Your task to perform on an android device: Open Google Maps Image 0: 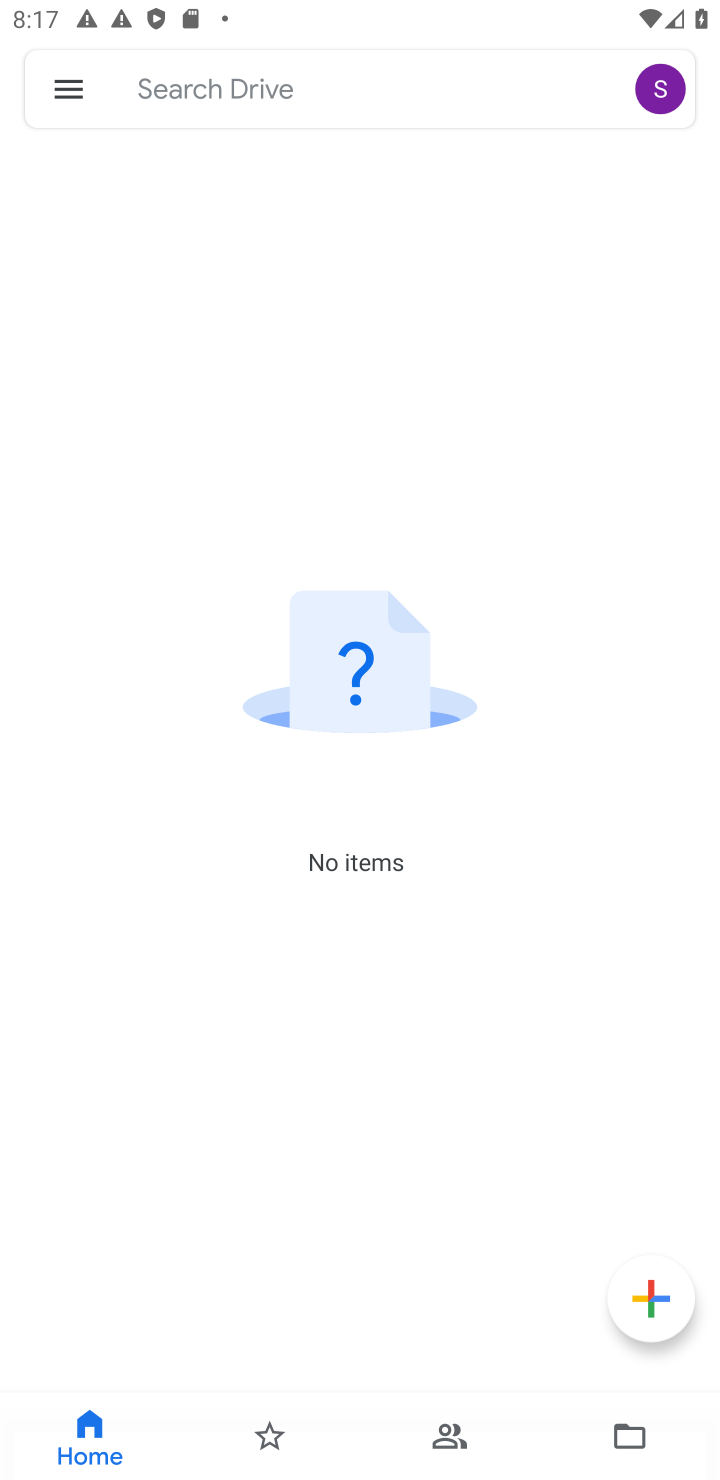
Step 0: press home button
Your task to perform on an android device: Open Google Maps Image 1: 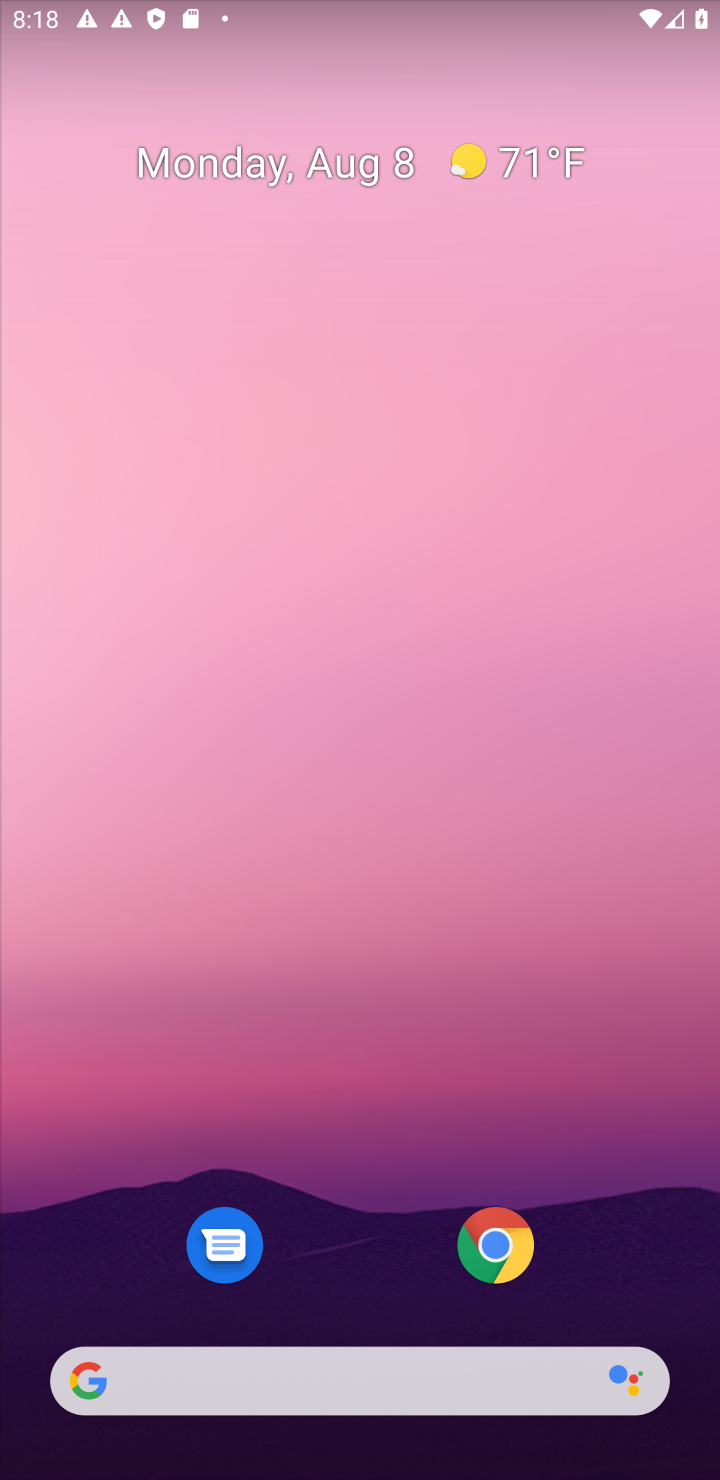
Step 1: drag from (339, 1259) to (335, 17)
Your task to perform on an android device: Open Google Maps Image 2: 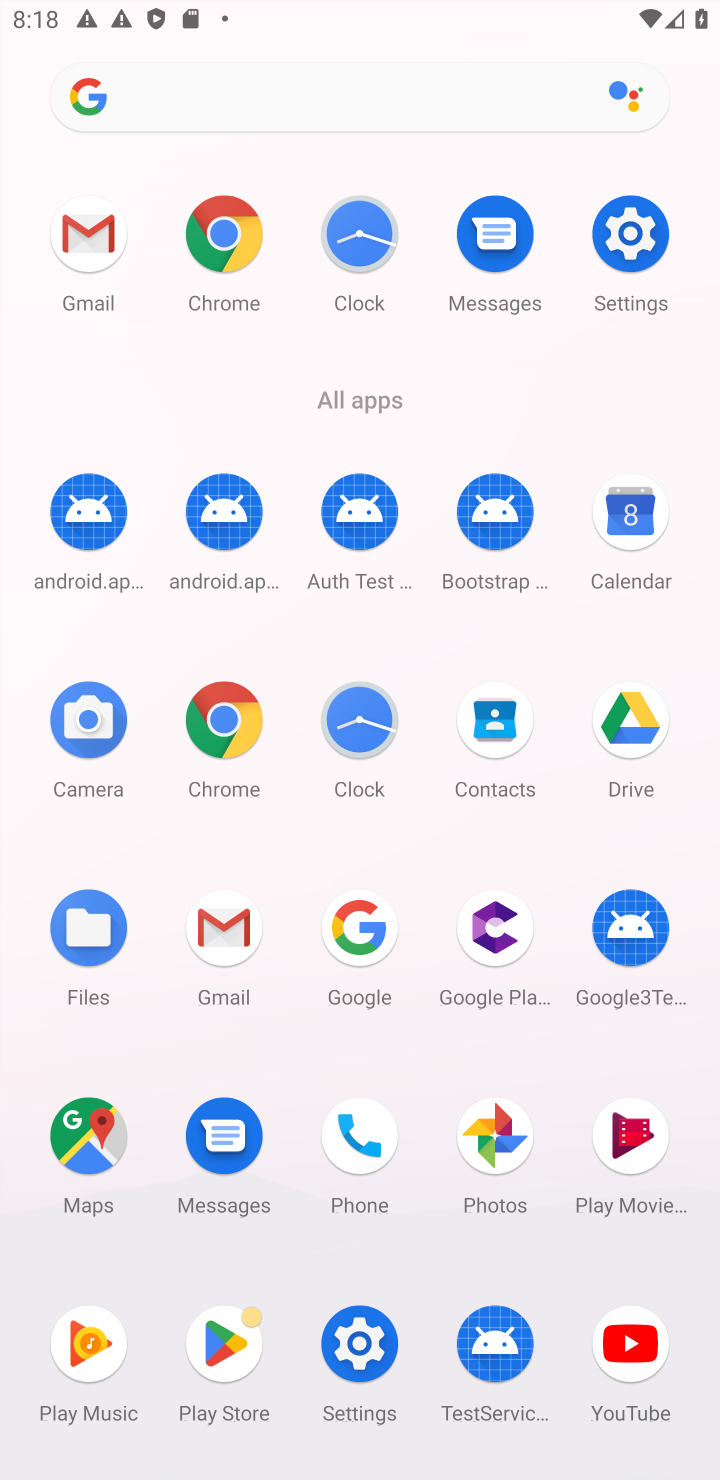
Step 2: click (58, 1139)
Your task to perform on an android device: Open Google Maps Image 3: 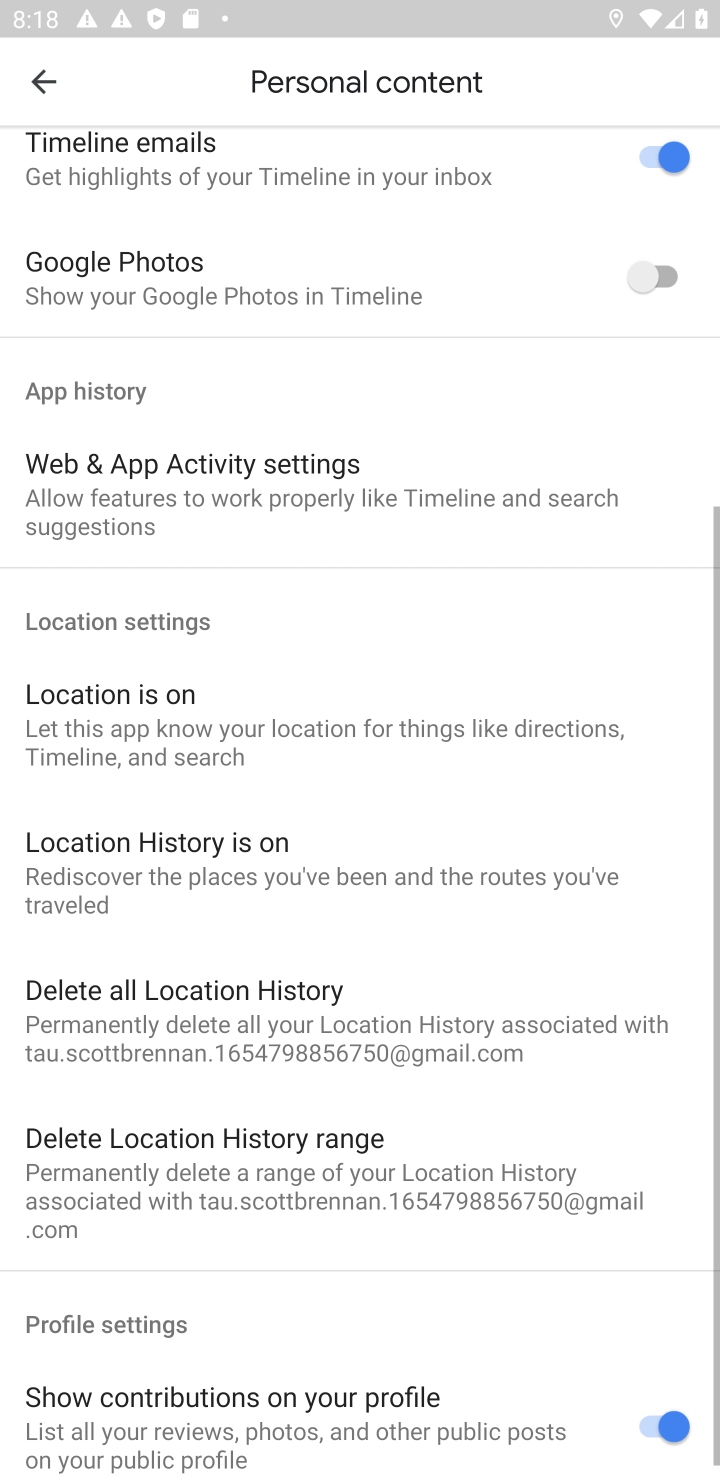
Step 3: click (22, 76)
Your task to perform on an android device: Open Google Maps Image 4: 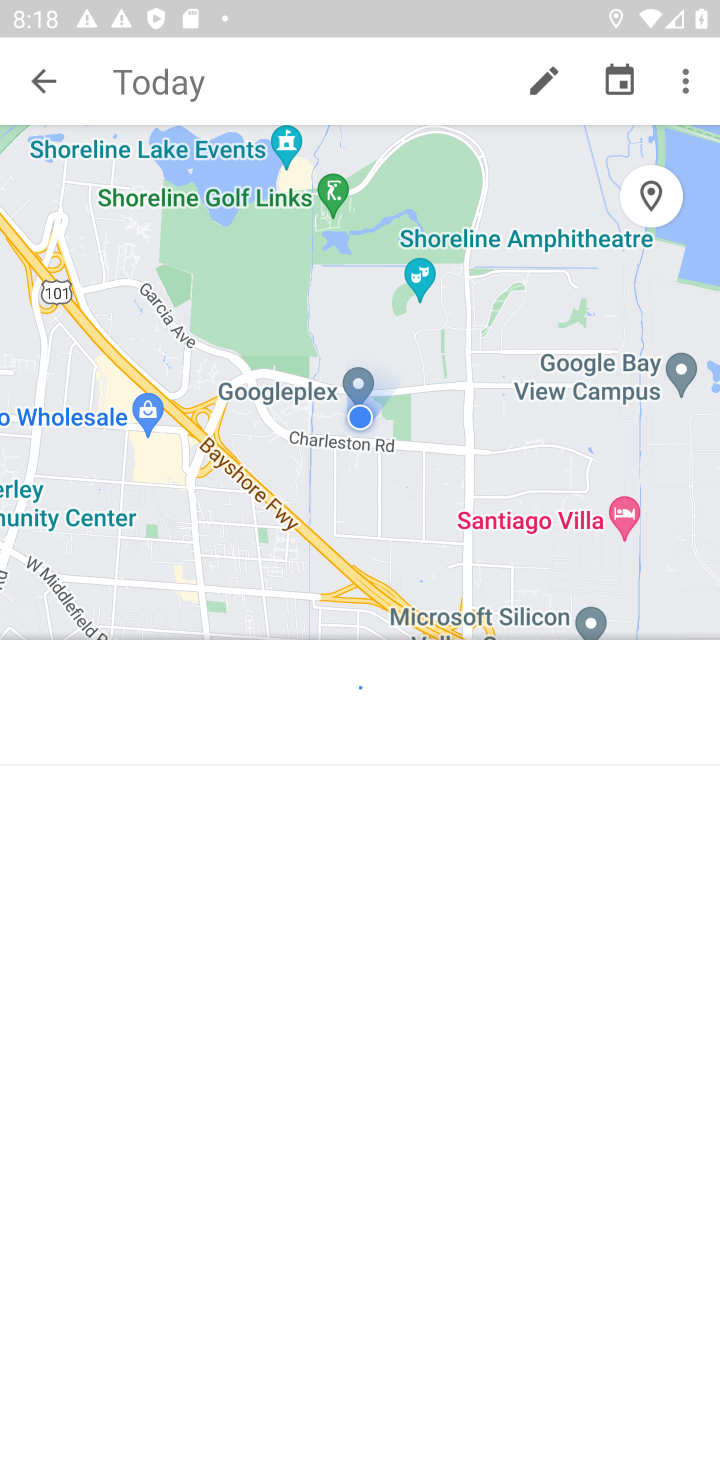
Step 4: click (39, 82)
Your task to perform on an android device: Open Google Maps Image 5: 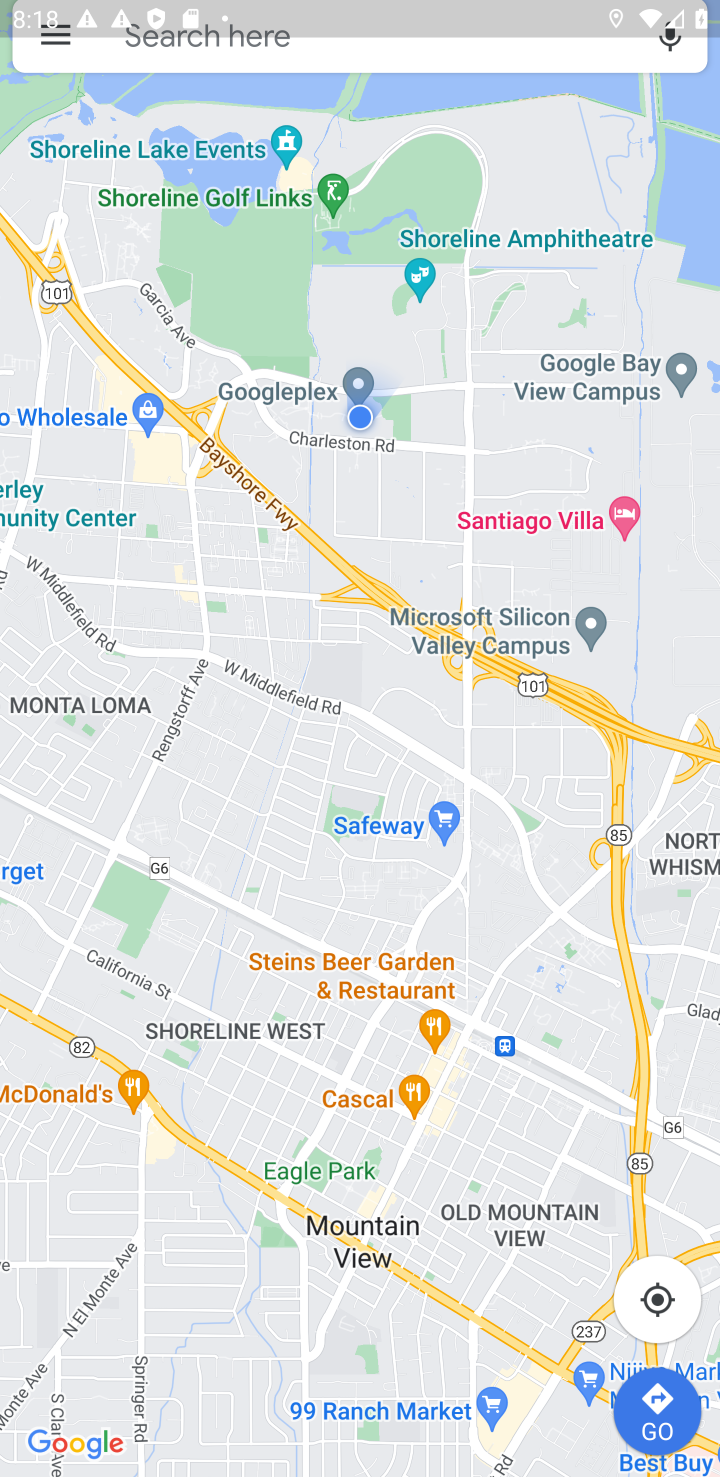
Step 5: task complete